Your task to perform on an android device: Open notification settings Image 0: 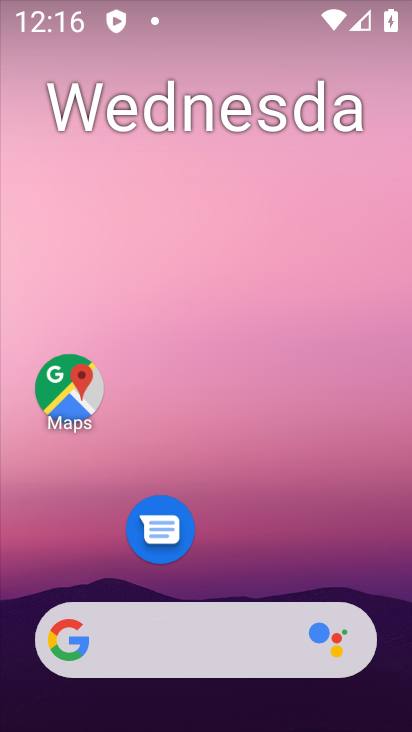
Step 0: drag from (255, 577) to (400, 15)
Your task to perform on an android device: Open notification settings Image 1: 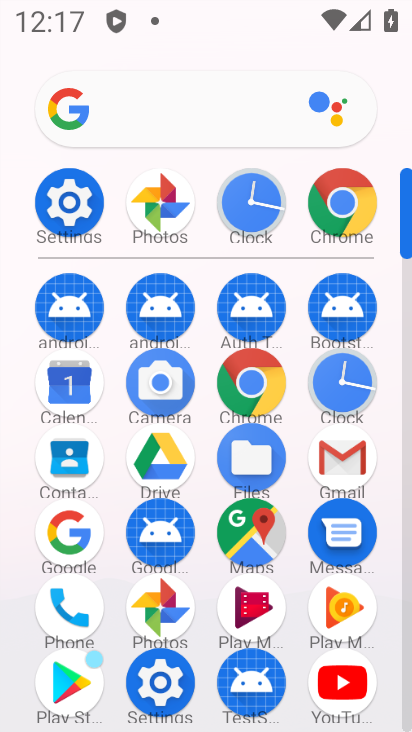
Step 1: click (145, 693)
Your task to perform on an android device: Open notification settings Image 2: 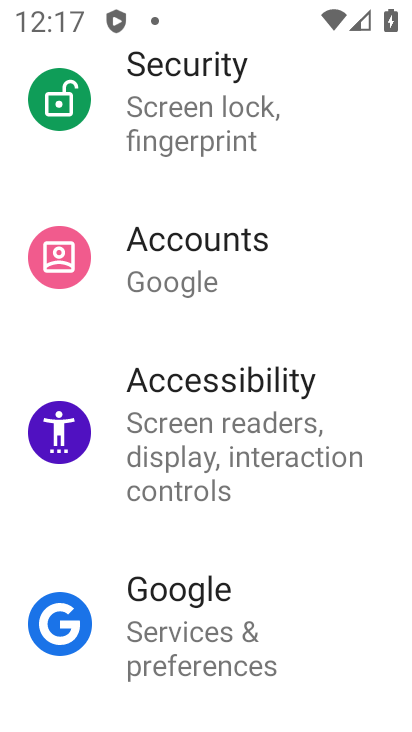
Step 2: drag from (146, 209) to (129, 642)
Your task to perform on an android device: Open notification settings Image 3: 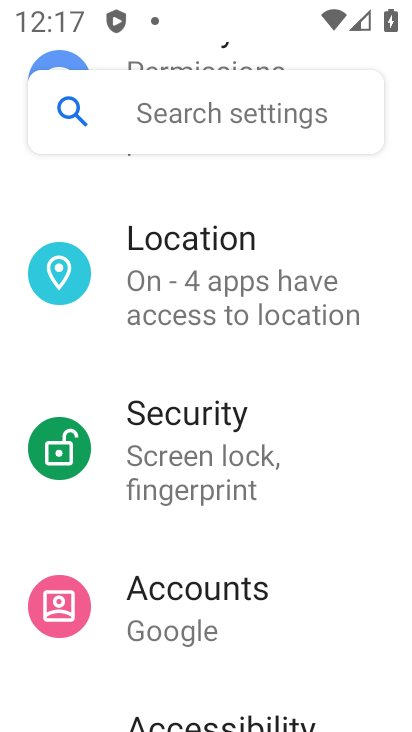
Step 3: drag from (258, 333) to (234, 730)
Your task to perform on an android device: Open notification settings Image 4: 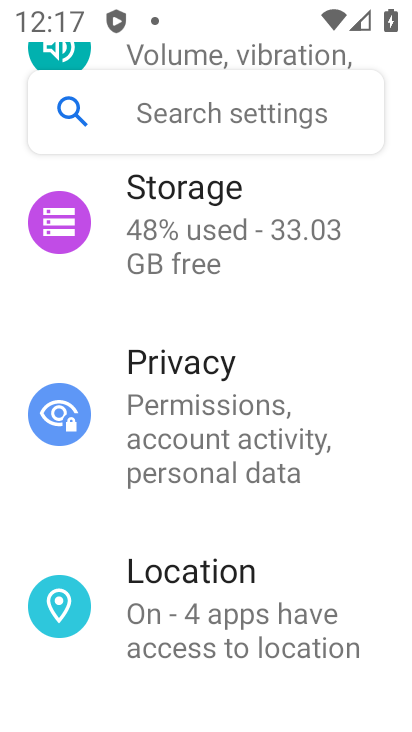
Step 4: drag from (297, 233) to (258, 710)
Your task to perform on an android device: Open notification settings Image 5: 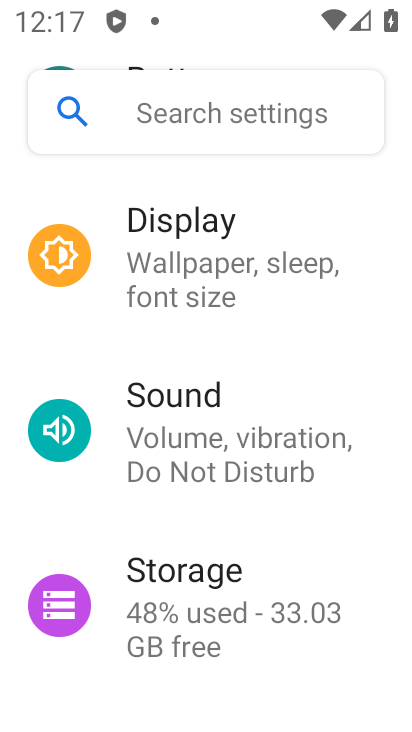
Step 5: drag from (254, 262) to (181, 729)
Your task to perform on an android device: Open notification settings Image 6: 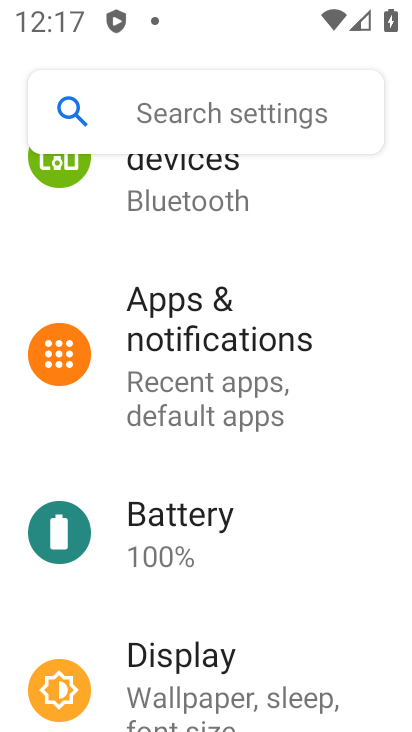
Step 6: click (164, 373)
Your task to perform on an android device: Open notification settings Image 7: 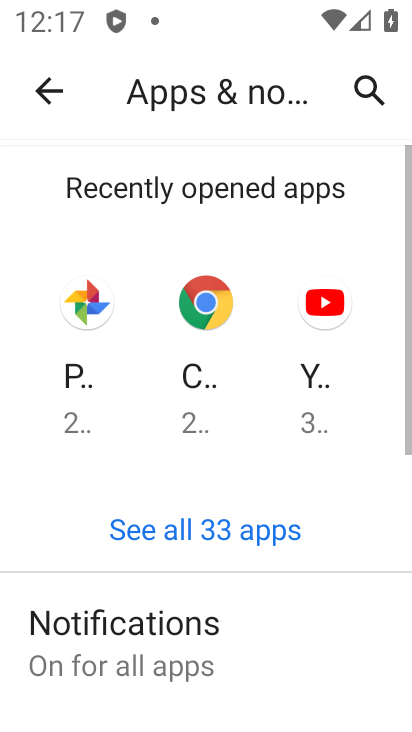
Step 7: click (259, 645)
Your task to perform on an android device: Open notification settings Image 8: 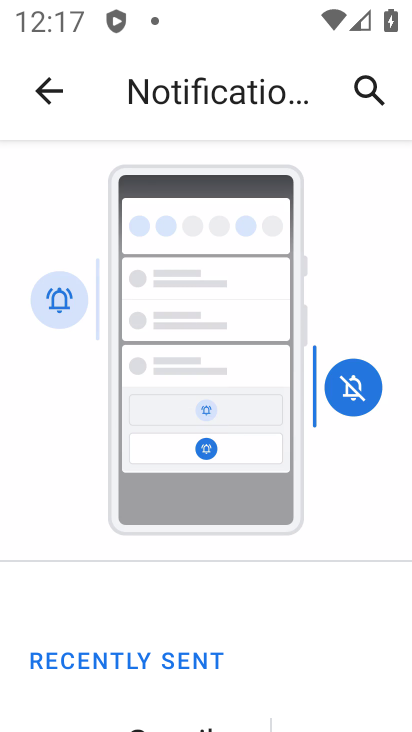
Step 8: task complete